Your task to perform on an android device: manage bookmarks in the chrome app Image 0: 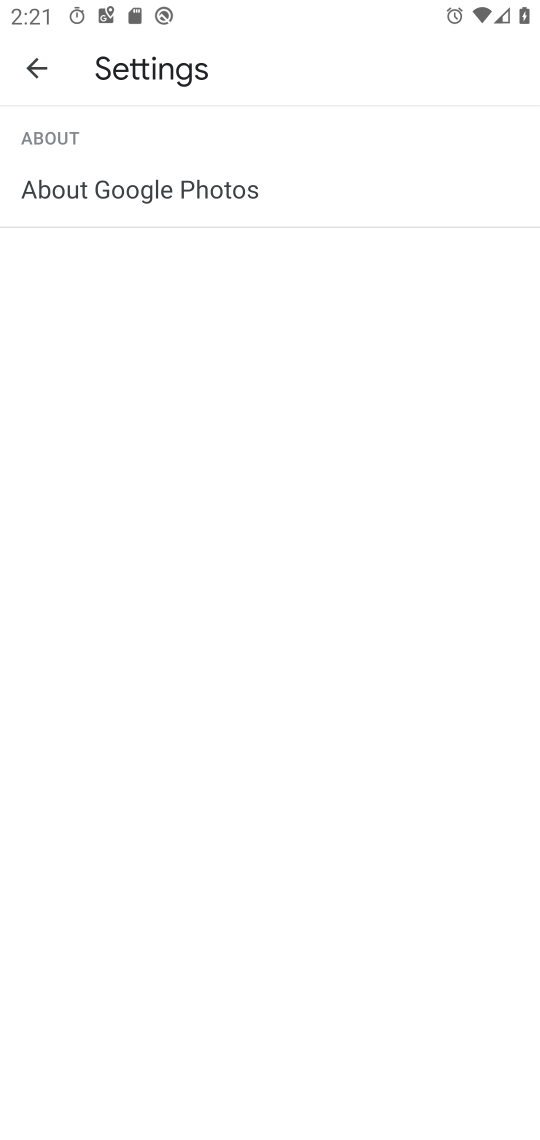
Step 0: press home button
Your task to perform on an android device: manage bookmarks in the chrome app Image 1: 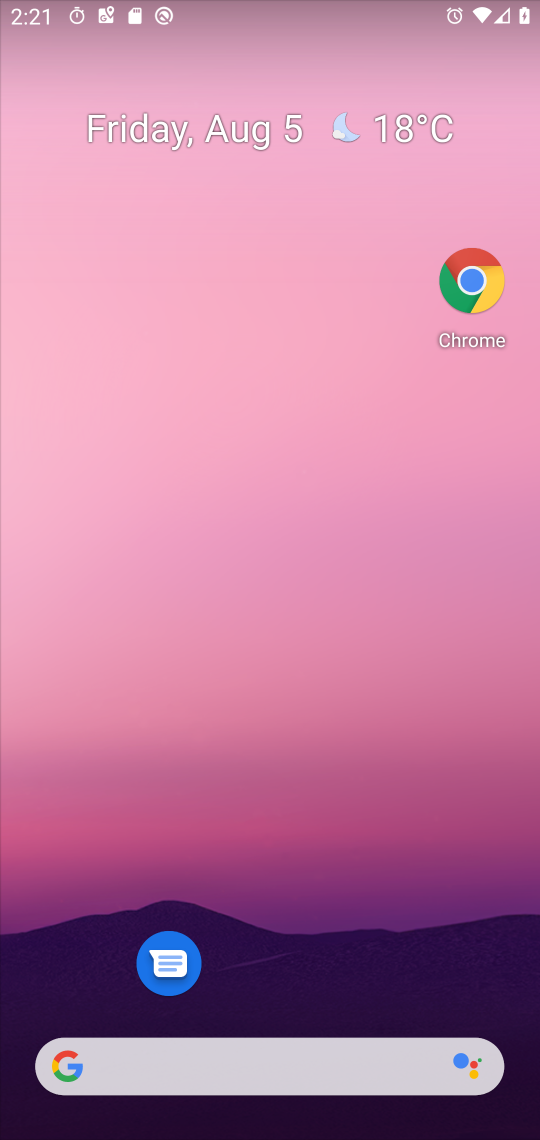
Step 1: drag from (290, 896) to (142, 122)
Your task to perform on an android device: manage bookmarks in the chrome app Image 2: 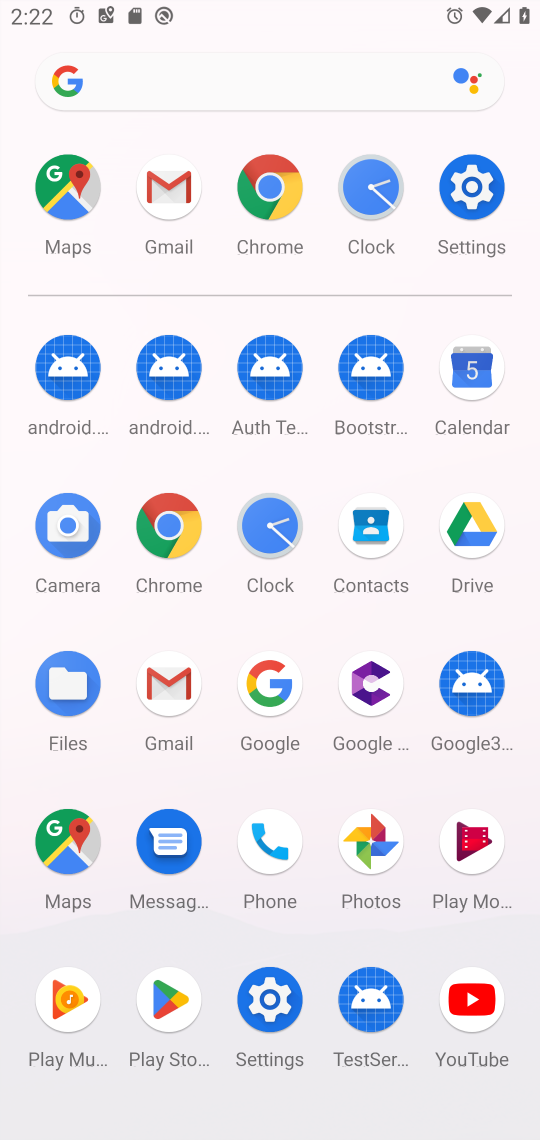
Step 2: click (262, 188)
Your task to perform on an android device: manage bookmarks in the chrome app Image 3: 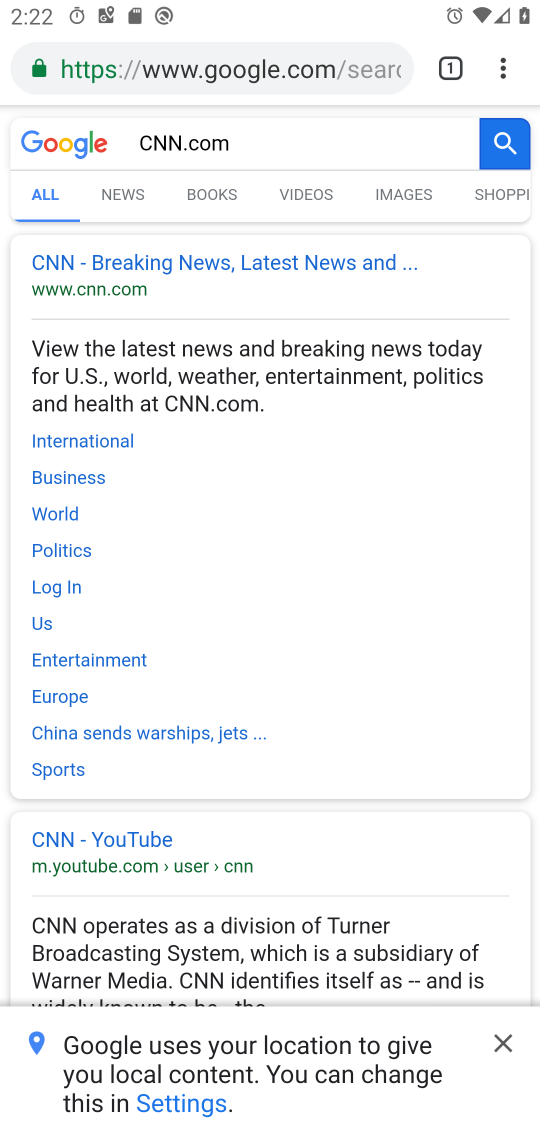
Step 3: drag from (500, 89) to (228, 271)
Your task to perform on an android device: manage bookmarks in the chrome app Image 4: 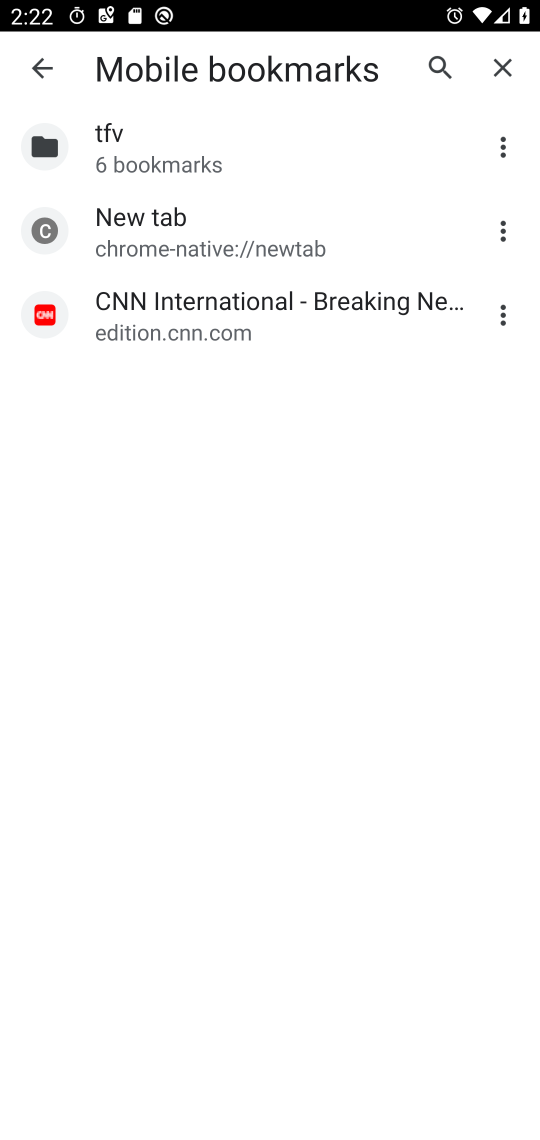
Step 4: click (512, 229)
Your task to perform on an android device: manage bookmarks in the chrome app Image 5: 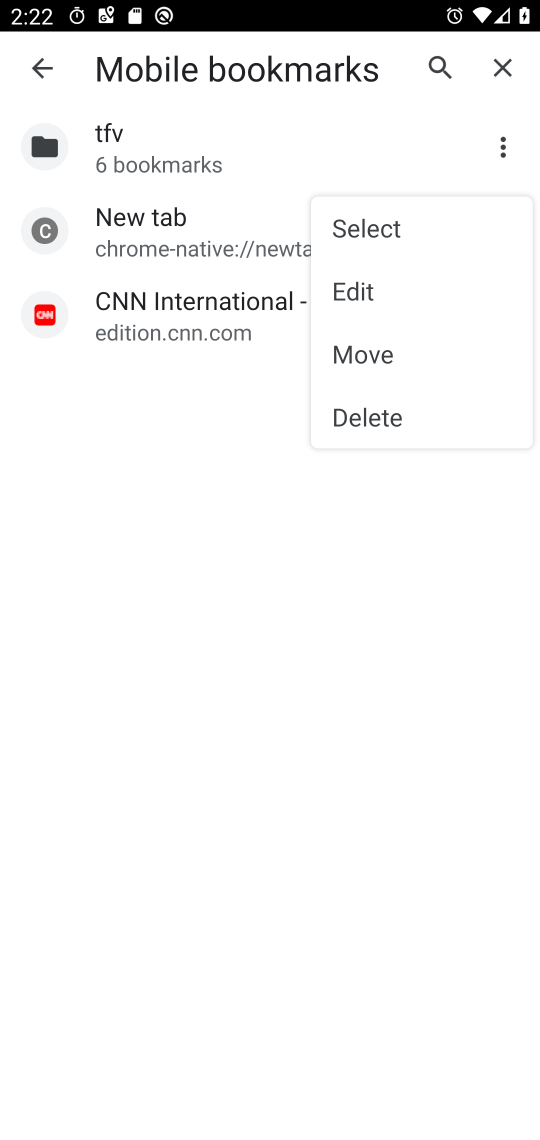
Step 5: click (375, 418)
Your task to perform on an android device: manage bookmarks in the chrome app Image 6: 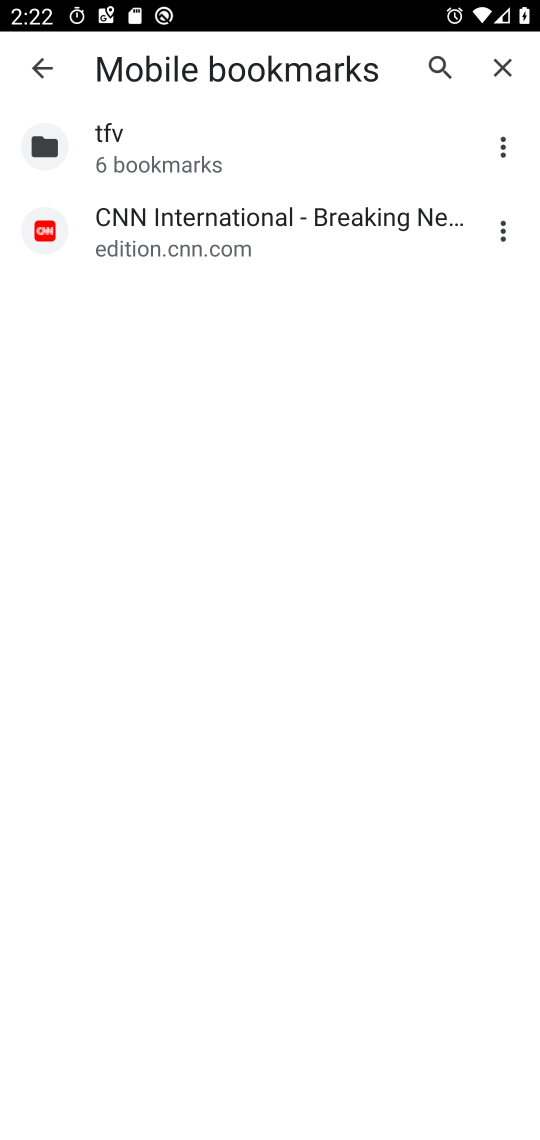
Step 6: task complete